Your task to perform on an android device: Open a new window in Chrome Image 0: 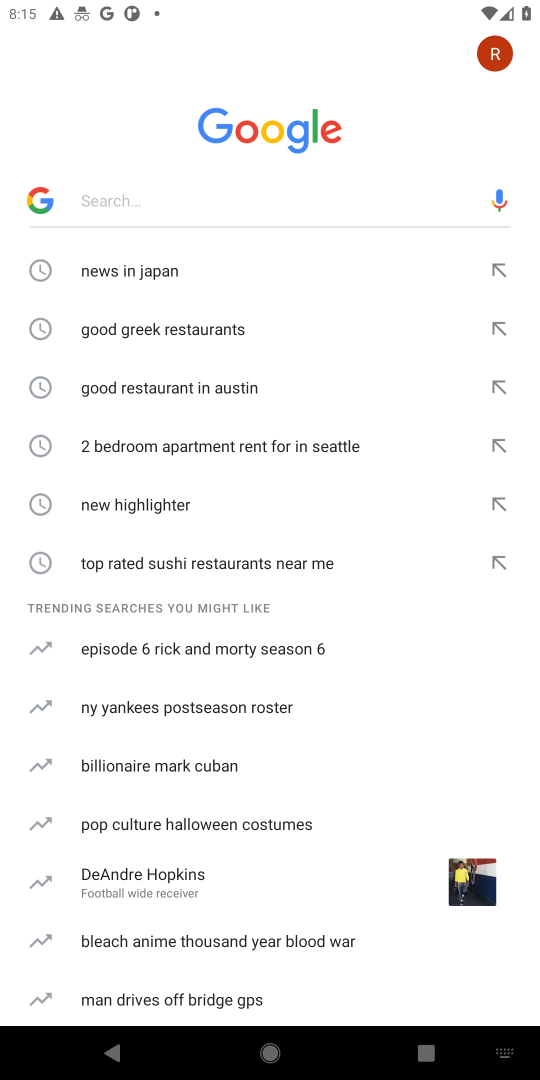
Step 0: press home button
Your task to perform on an android device: Open a new window in Chrome Image 1: 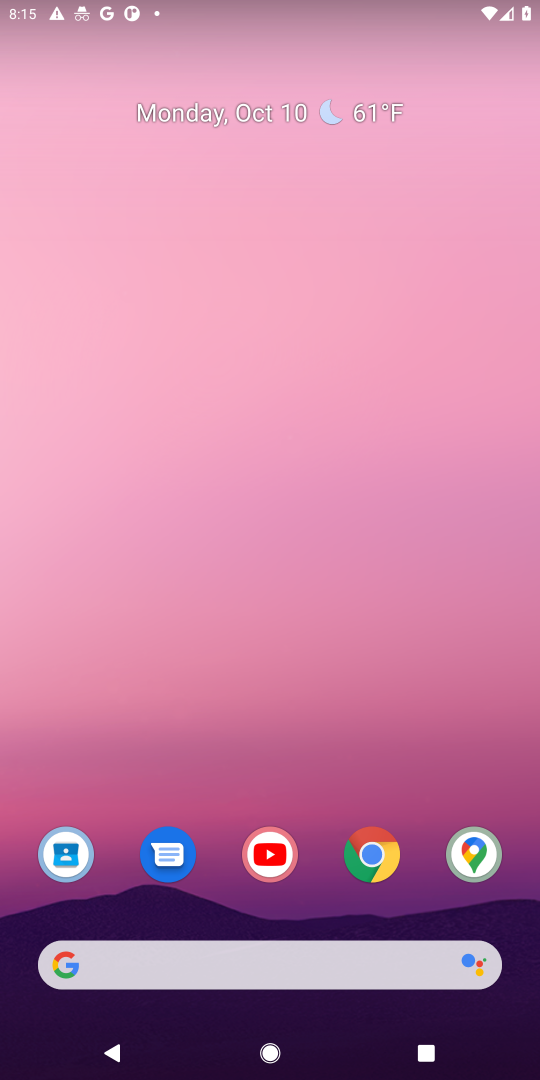
Step 1: click (372, 857)
Your task to perform on an android device: Open a new window in Chrome Image 2: 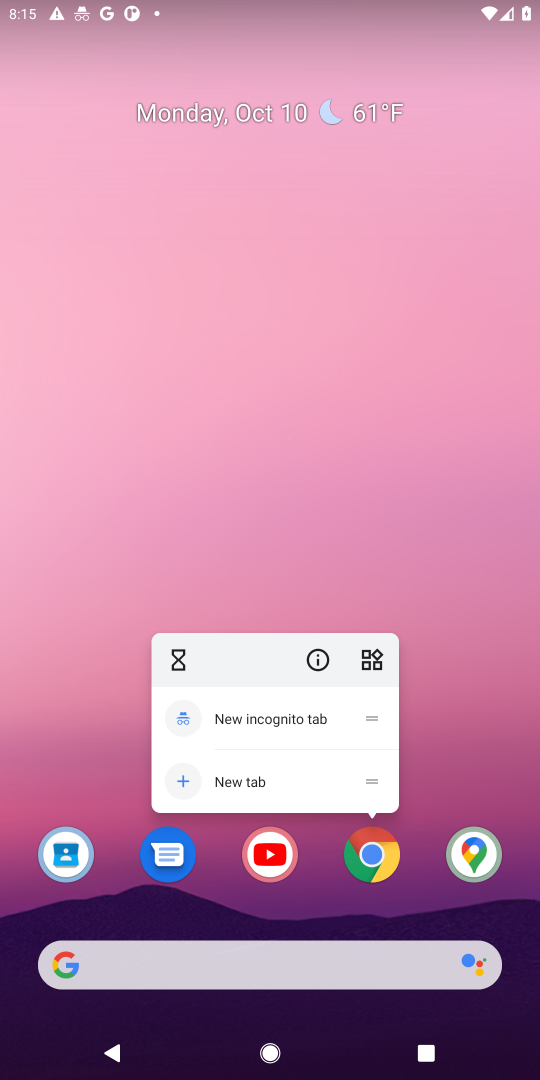
Step 2: click (372, 857)
Your task to perform on an android device: Open a new window in Chrome Image 3: 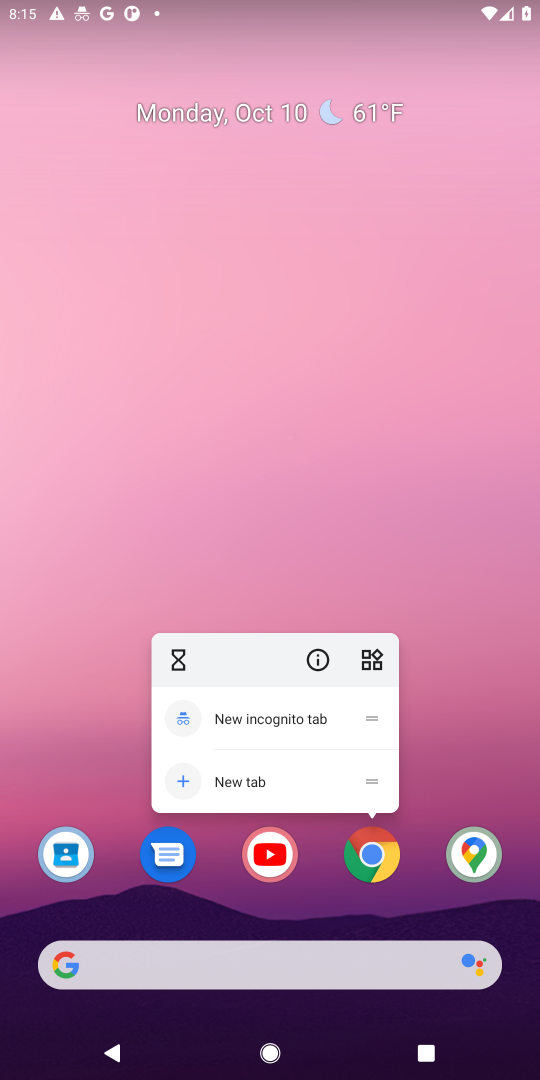
Step 3: click (372, 857)
Your task to perform on an android device: Open a new window in Chrome Image 4: 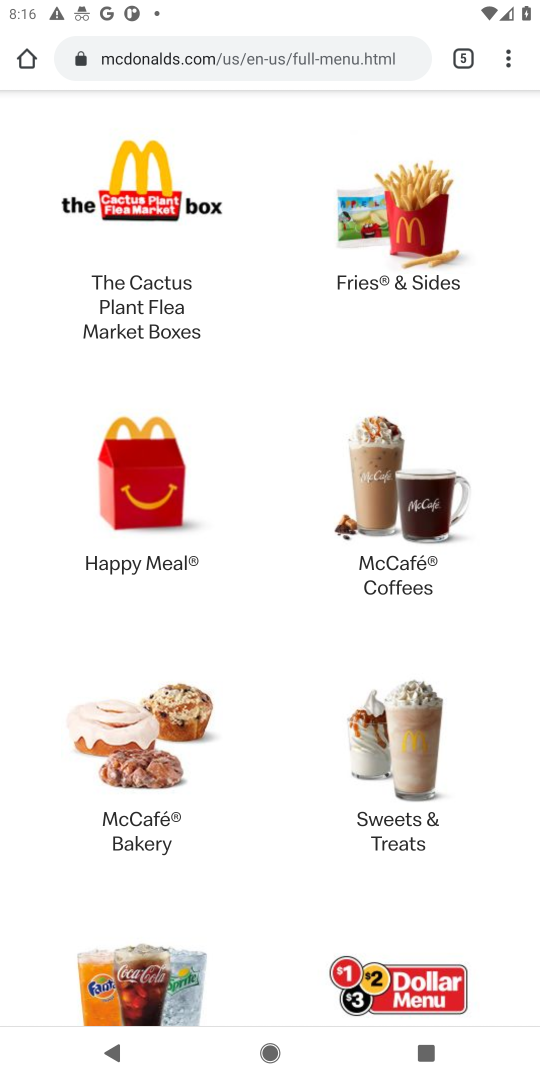
Step 4: click (338, 58)
Your task to perform on an android device: Open a new window in Chrome Image 5: 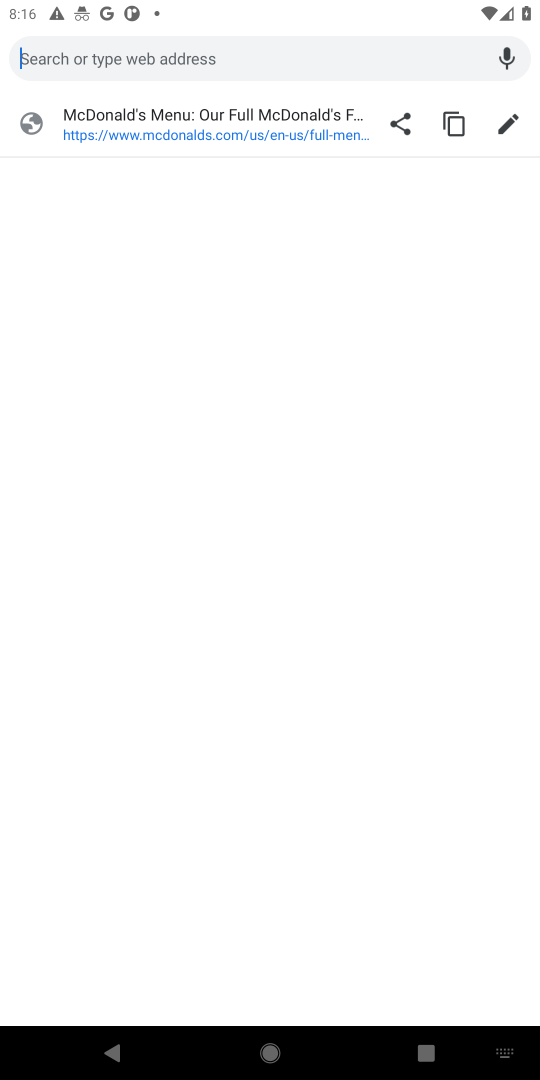
Step 5: task complete